Your task to perform on an android device: check google app version Image 0: 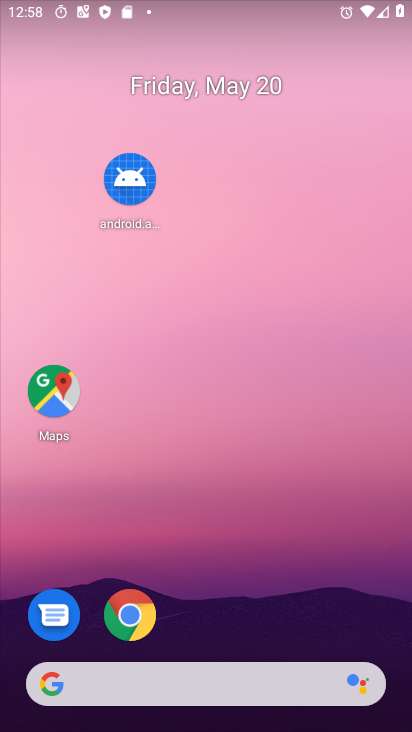
Step 0: drag from (281, 570) to (279, 267)
Your task to perform on an android device: check google app version Image 1: 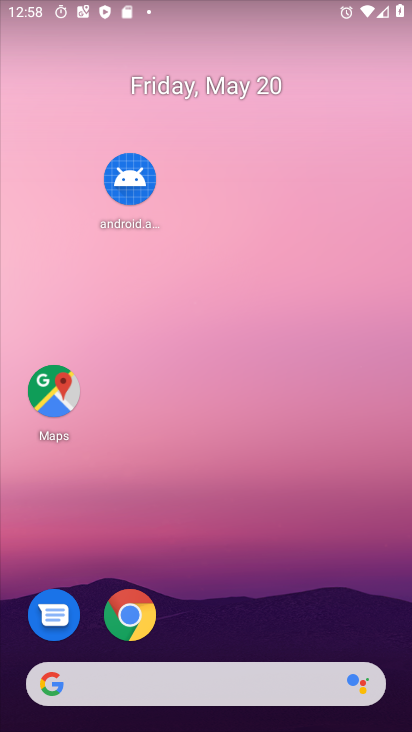
Step 1: drag from (304, 607) to (317, 129)
Your task to perform on an android device: check google app version Image 2: 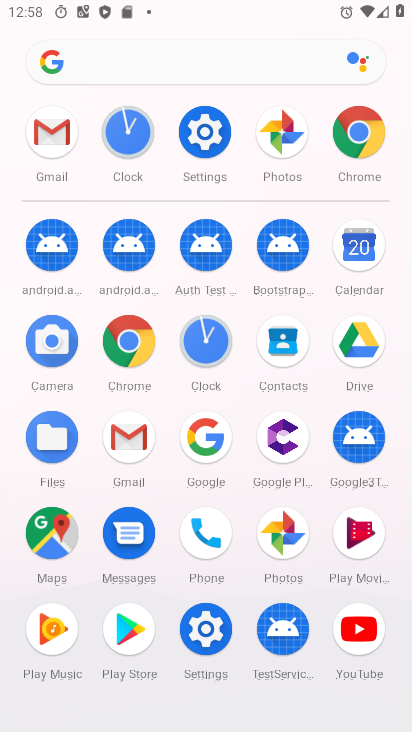
Step 2: click (211, 439)
Your task to perform on an android device: check google app version Image 3: 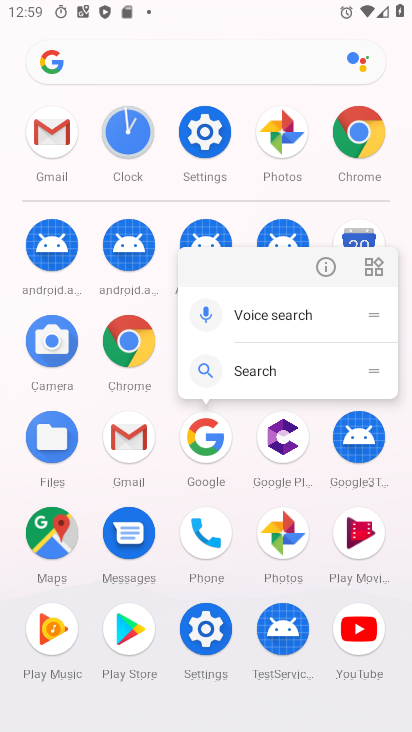
Step 3: click (328, 265)
Your task to perform on an android device: check google app version Image 4: 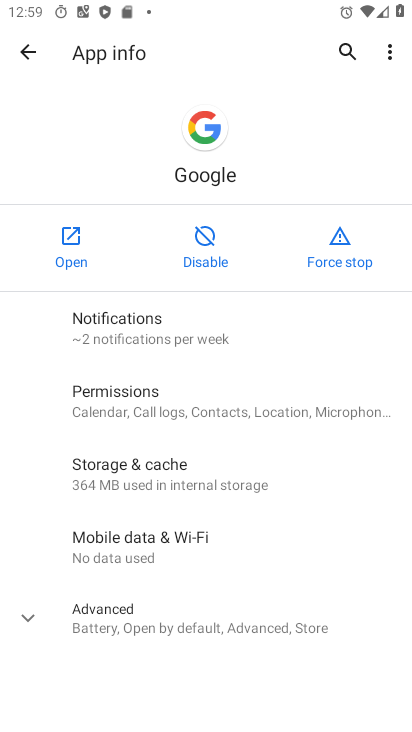
Step 4: click (289, 630)
Your task to perform on an android device: check google app version Image 5: 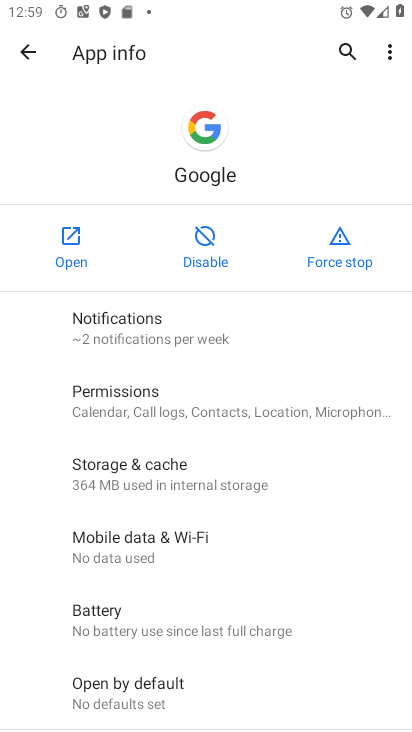
Step 5: task complete